Your task to perform on an android device: Go to Google Image 0: 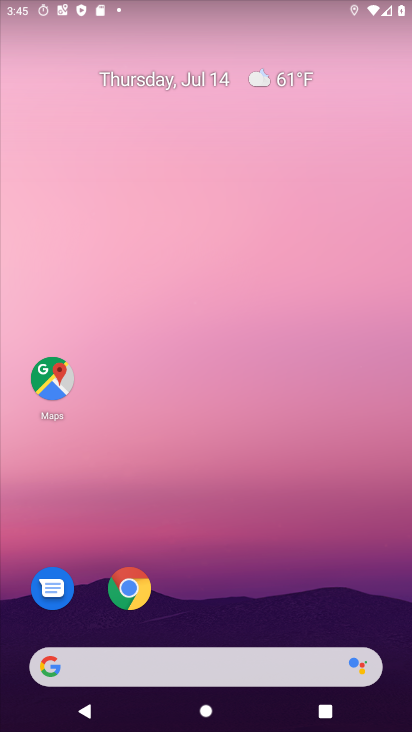
Step 0: drag from (220, 676) to (215, 160)
Your task to perform on an android device: Go to Google Image 1: 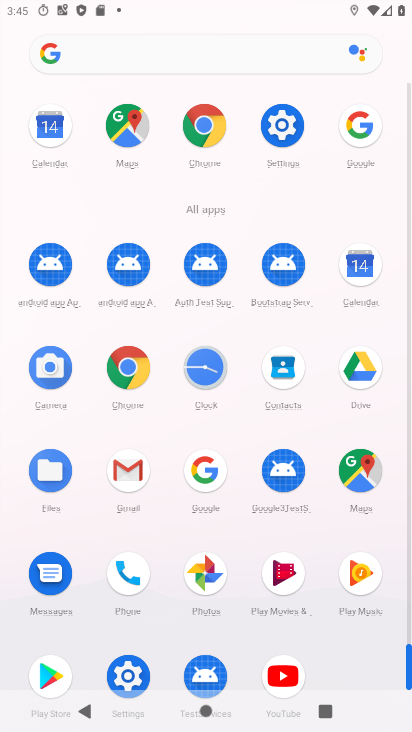
Step 1: click (201, 469)
Your task to perform on an android device: Go to Google Image 2: 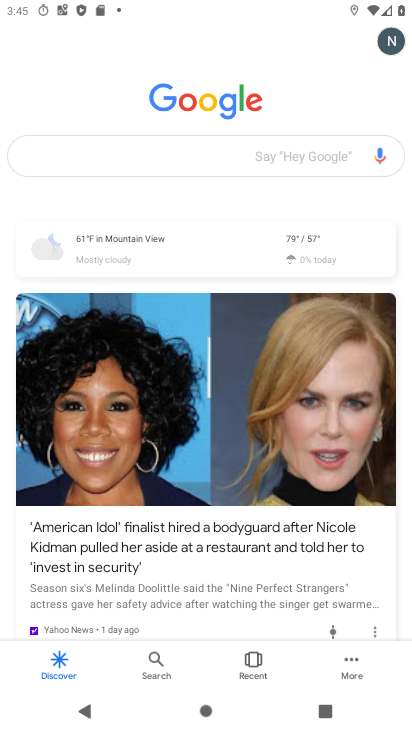
Step 2: task complete